Your task to perform on an android device: open chrome privacy settings Image 0: 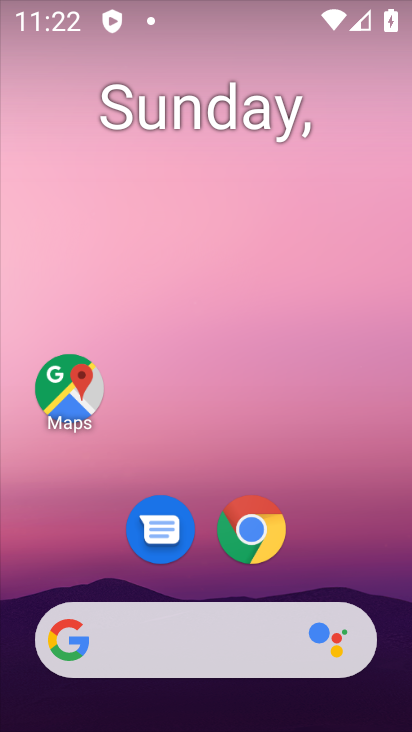
Step 0: click (252, 531)
Your task to perform on an android device: open chrome privacy settings Image 1: 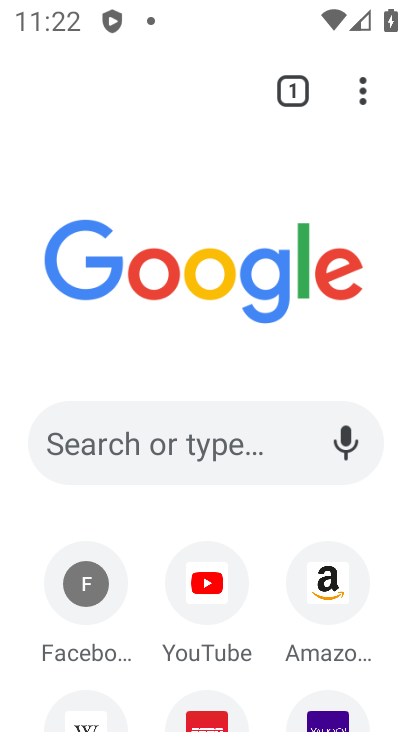
Step 1: click (362, 86)
Your task to perform on an android device: open chrome privacy settings Image 2: 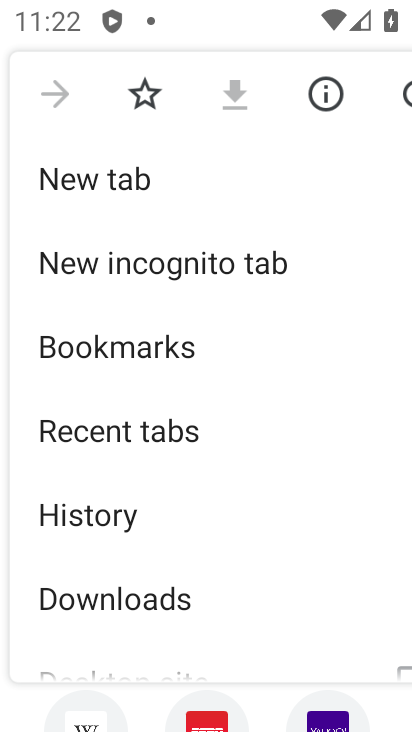
Step 2: drag from (130, 400) to (205, 288)
Your task to perform on an android device: open chrome privacy settings Image 3: 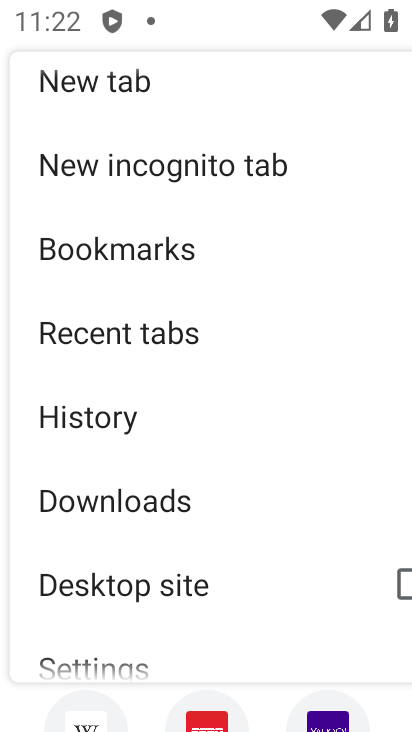
Step 3: drag from (142, 462) to (214, 363)
Your task to perform on an android device: open chrome privacy settings Image 4: 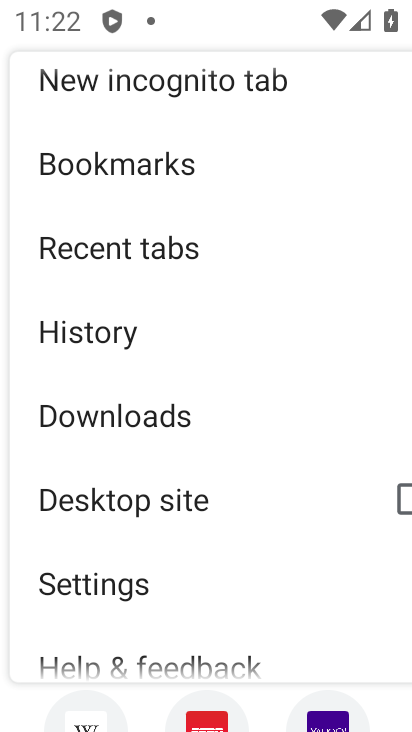
Step 4: drag from (143, 532) to (184, 425)
Your task to perform on an android device: open chrome privacy settings Image 5: 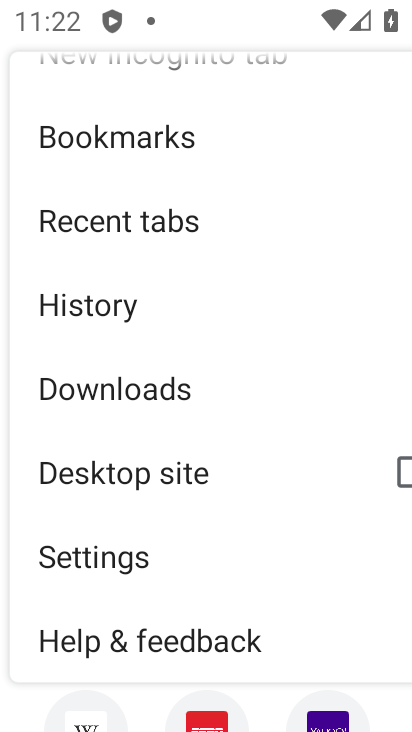
Step 5: click (98, 569)
Your task to perform on an android device: open chrome privacy settings Image 6: 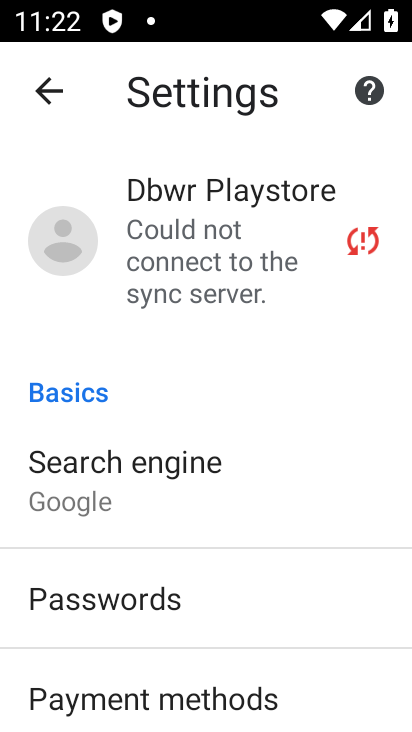
Step 6: drag from (233, 578) to (297, 452)
Your task to perform on an android device: open chrome privacy settings Image 7: 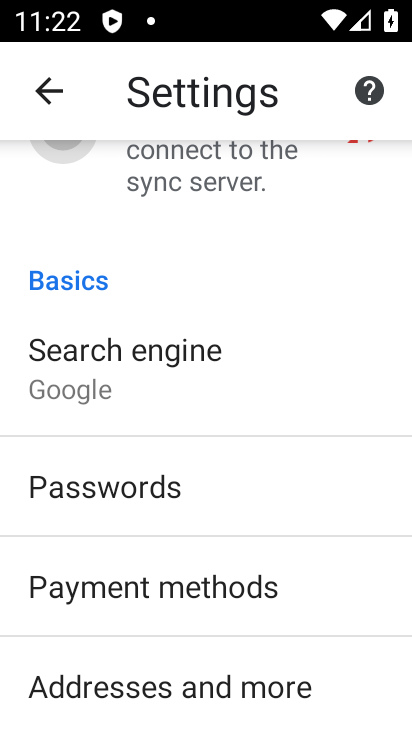
Step 7: drag from (232, 619) to (310, 480)
Your task to perform on an android device: open chrome privacy settings Image 8: 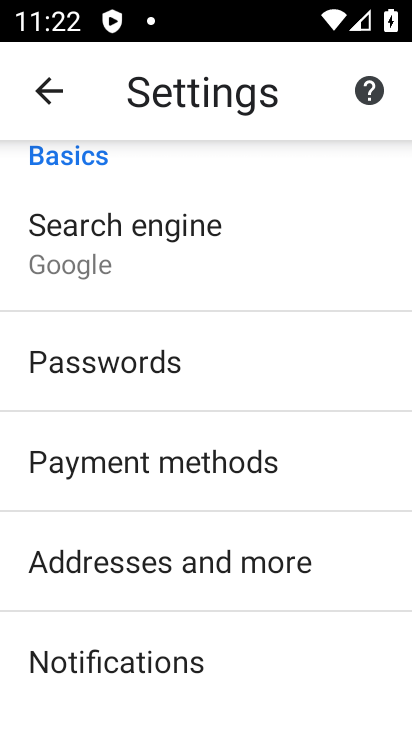
Step 8: drag from (228, 627) to (278, 500)
Your task to perform on an android device: open chrome privacy settings Image 9: 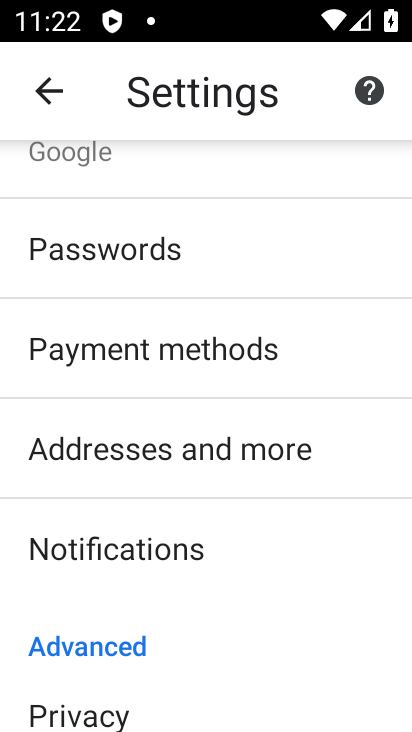
Step 9: drag from (197, 619) to (266, 467)
Your task to perform on an android device: open chrome privacy settings Image 10: 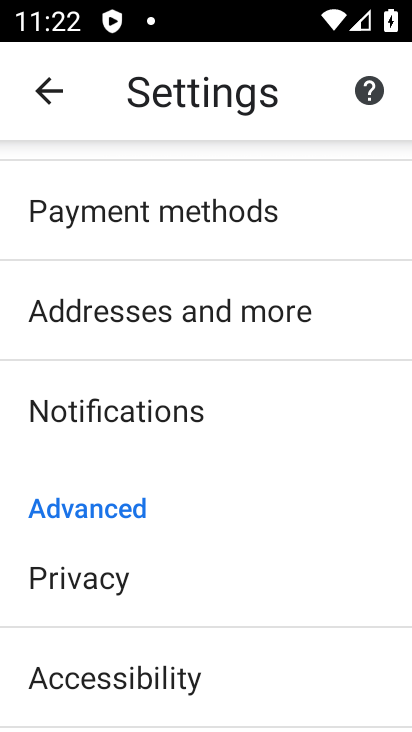
Step 10: drag from (165, 592) to (216, 495)
Your task to perform on an android device: open chrome privacy settings Image 11: 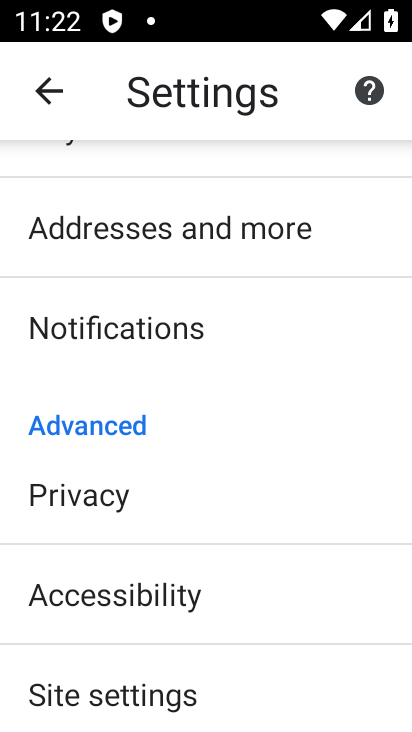
Step 11: click (107, 488)
Your task to perform on an android device: open chrome privacy settings Image 12: 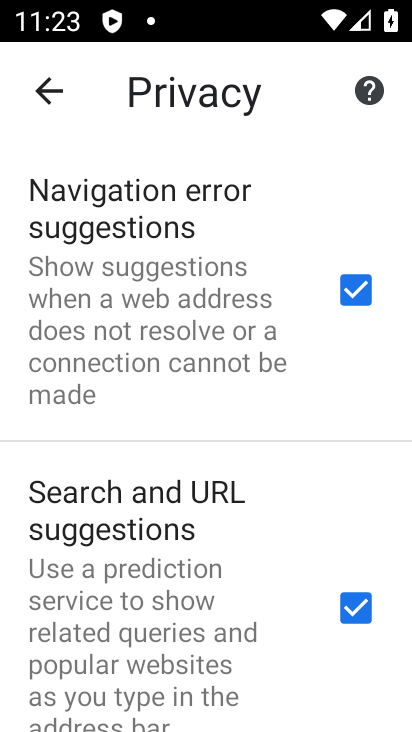
Step 12: task complete